Your task to perform on an android device: Open Maps and search for coffee Image 0: 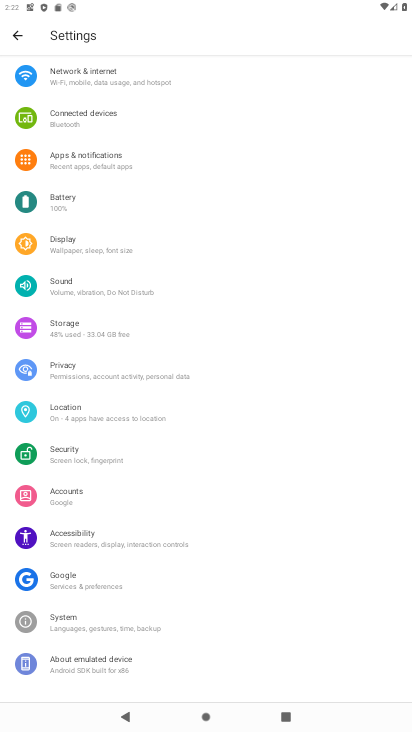
Step 0: press home button
Your task to perform on an android device: Open Maps and search for coffee Image 1: 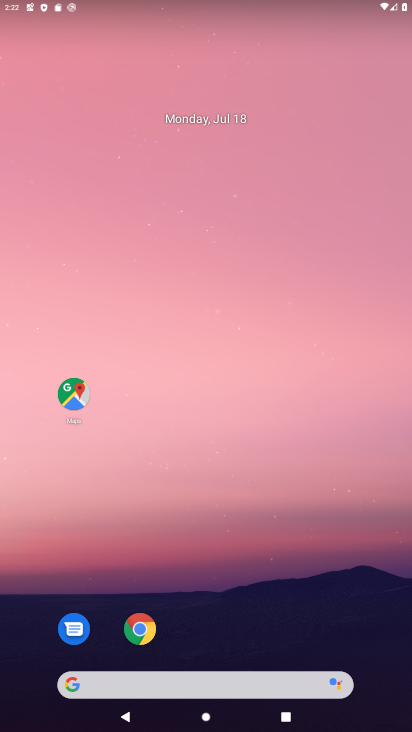
Step 1: click (81, 392)
Your task to perform on an android device: Open Maps and search for coffee Image 2: 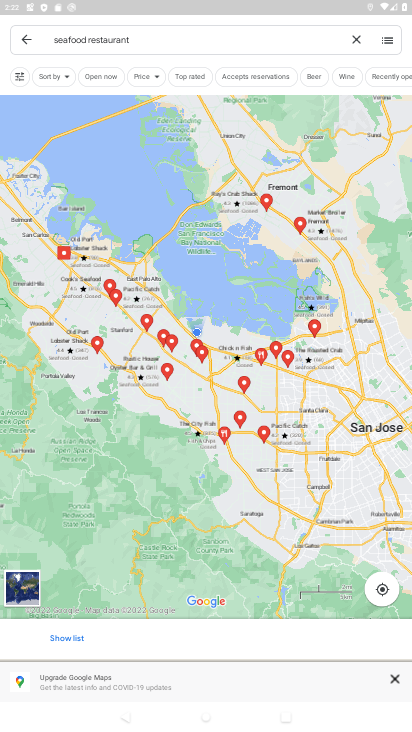
Step 2: click (351, 39)
Your task to perform on an android device: Open Maps and search for coffee Image 3: 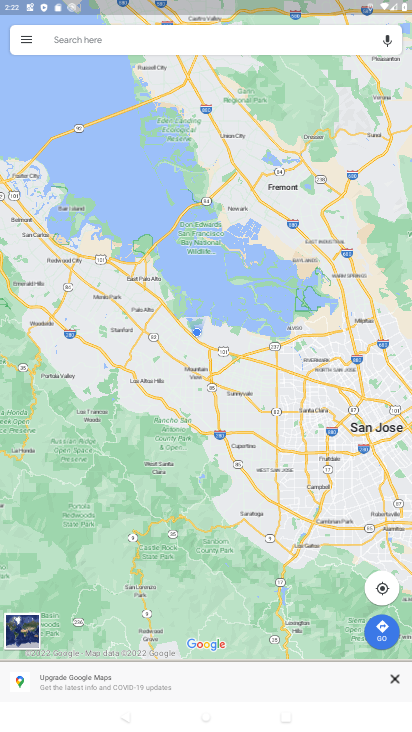
Step 3: click (146, 49)
Your task to perform on an android device: Open Maps and search for coffee Image 4: 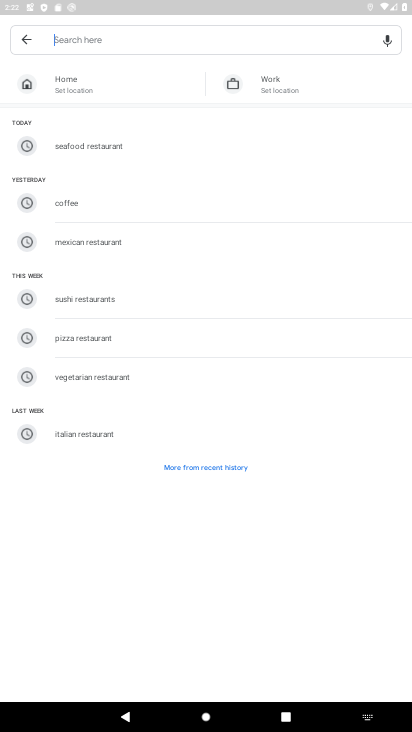
Step 4: click (54, 206)
Your task to perform on an android device: Open Maps and search for coffee Image 5: 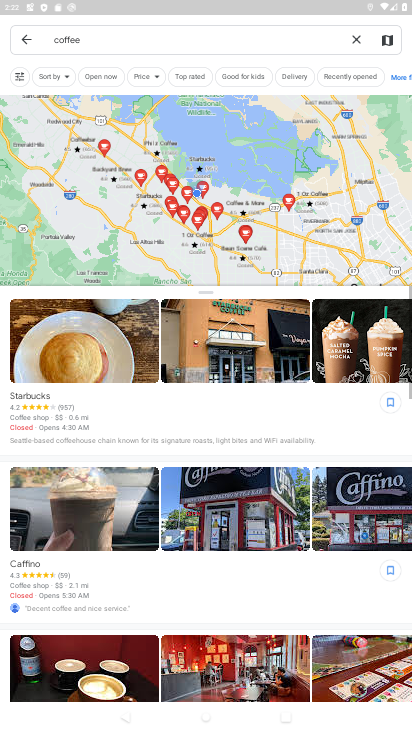
Step 5: task complete